Your task to perform on an android device: change the clock display to digital Image 0: 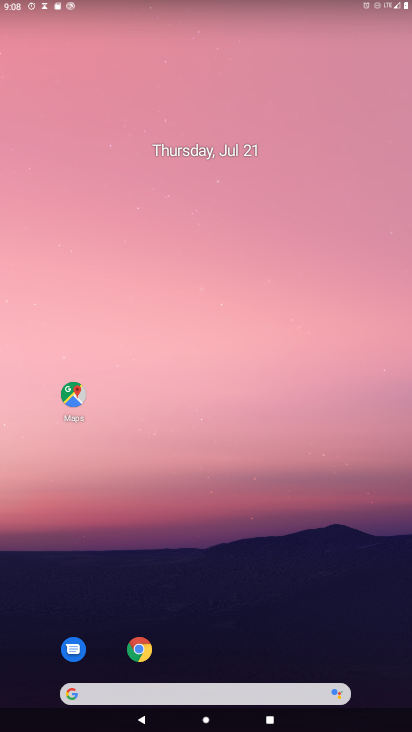
Step 0: drag from (337, 642) to (192, 38)
Your task to perform on an android device: change the clock display to digital Image 1: 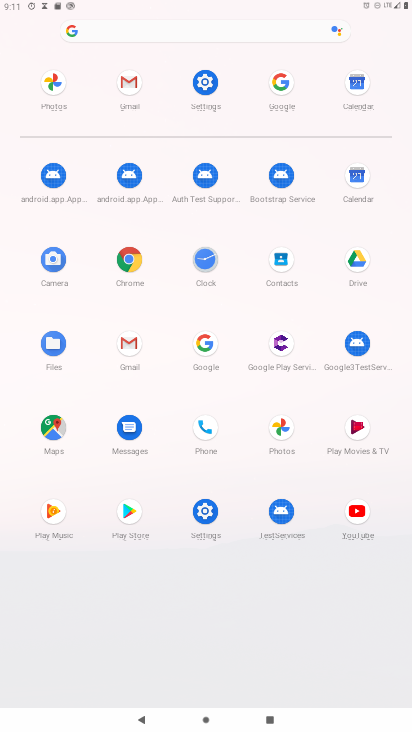
Step 1: click (207, 255)
Your task to perform on an android device: change the clock display to digital Image 2: 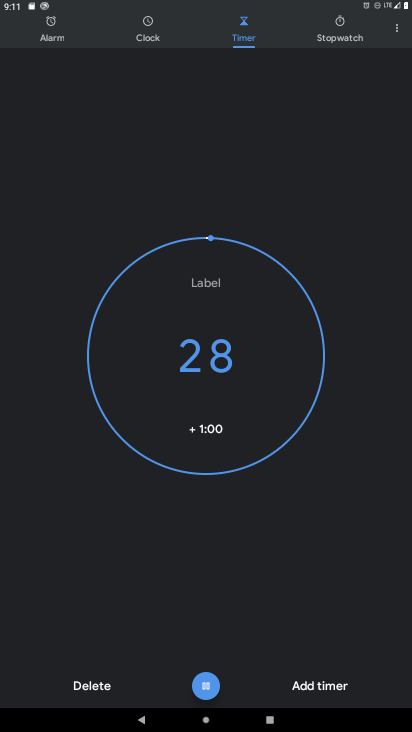
Step 2: click (397, 22)
Your task to perform on an android device: change the clock display to digital Image 3: 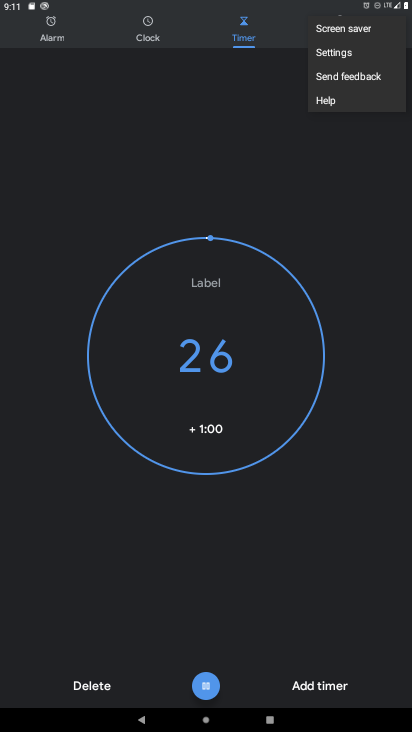
Step 3: click (330, 52)
Your task to perform on an android device: change the clock display to digital Image 4: 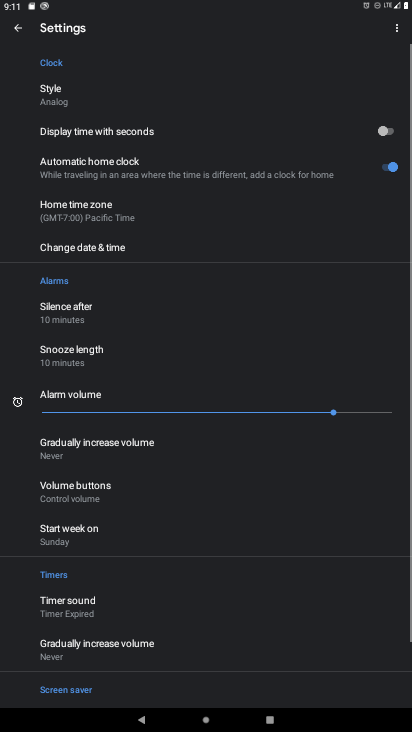
Step 4: click (62, 89)
Your task to perform on an android device: change the clock display to digital Image 5: 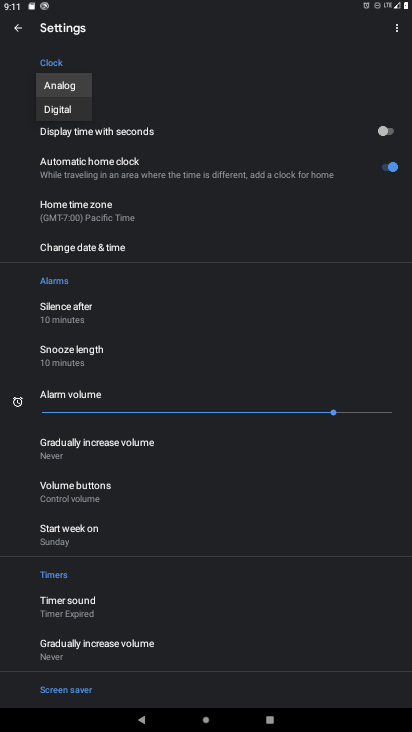
Step 5: click (58, 110)
Your task to perform on an android device: change the clock display to digital Image 6: 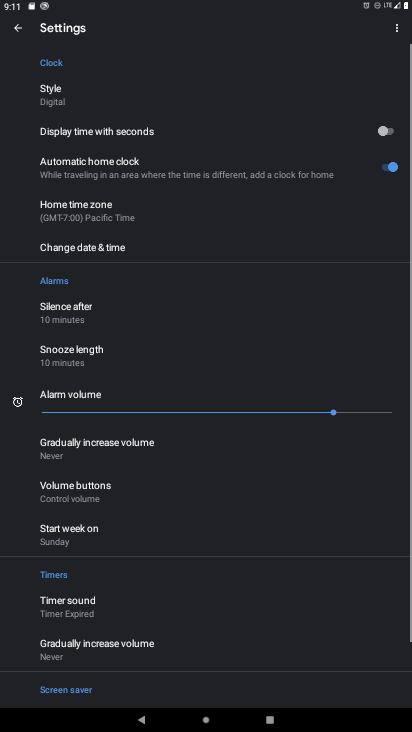
Step 6: task complete